Your task to perform on an android device: open a bookmark in the chrome app Image 0: 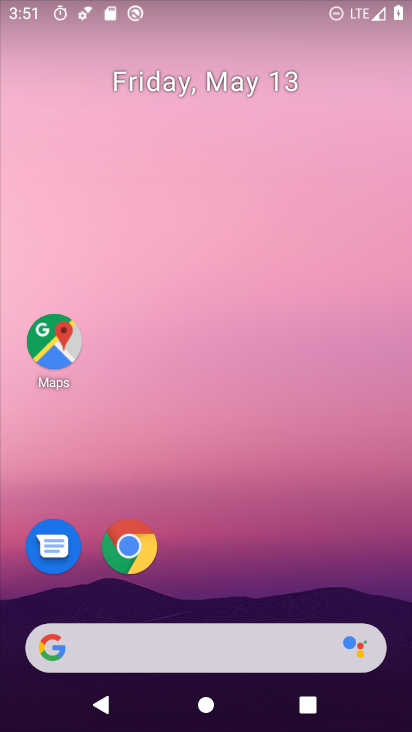
Step 0: drag from (240, 660) to (313, 141)
Your task to perform on an android device: open a bookmark in the chrome app Image 1: 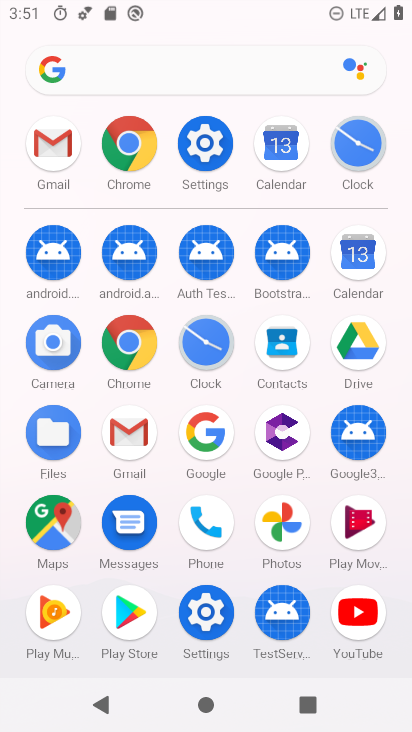
Step 1: click (141, 347)
Your task to perform on an android device: open a bookmark in the chrome app Image 2: 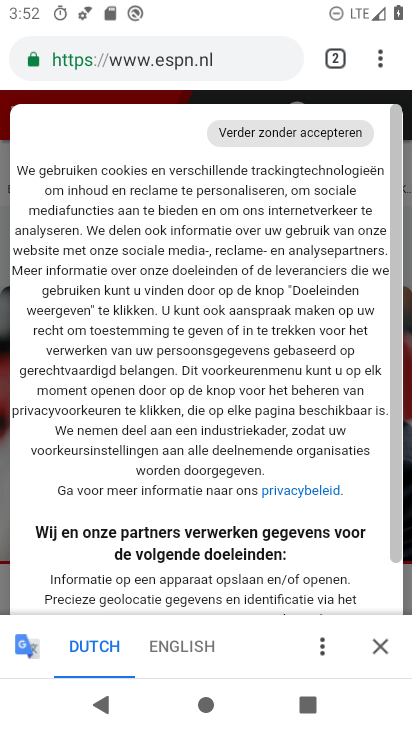
Step 2: click (390, 63)
Your task to perform on an android device: open a bookmark in the chrome app Image 3: 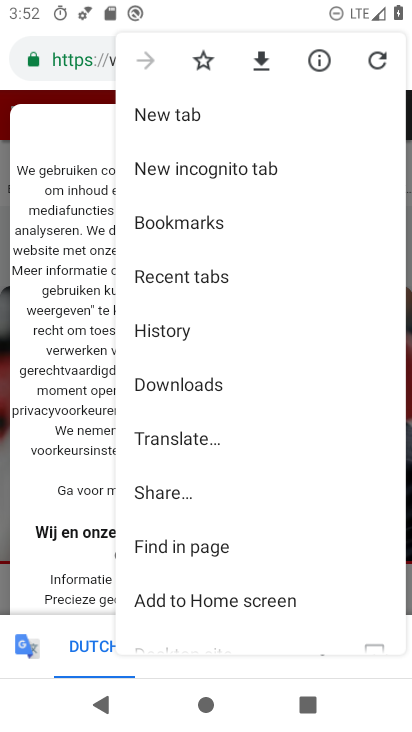
Step 3: click (188, 224)
Your task to perform on an android device: open a bookmark in the chrome app Image 4: 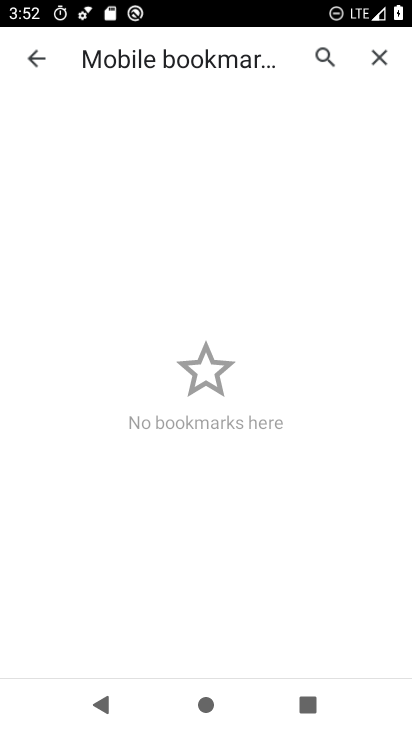
Step 4: task complete